Your task to perform on an android device: delete a single message in the gmail app Image 0: 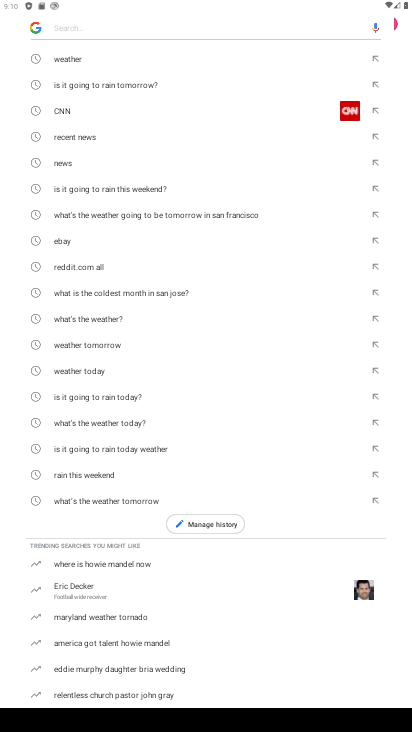
Step 0: press home button
Your task to perform on an android device: delete a single message in the gmail app Image 1: 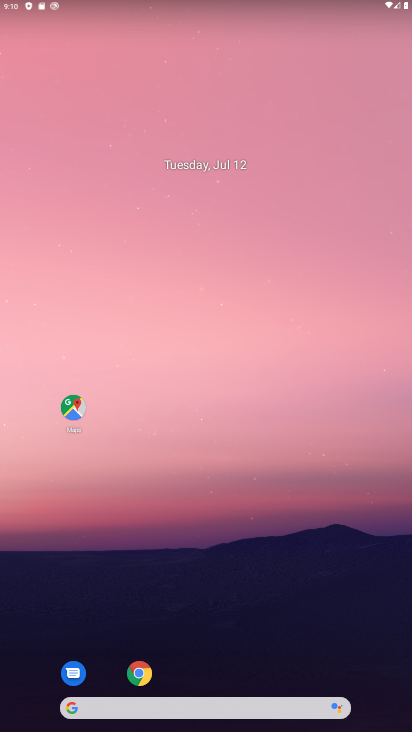
Step 1: drag from (169, 541) to (269, 52)
Your task to perform on an android device: delete a single message in the gmail app Image 2: 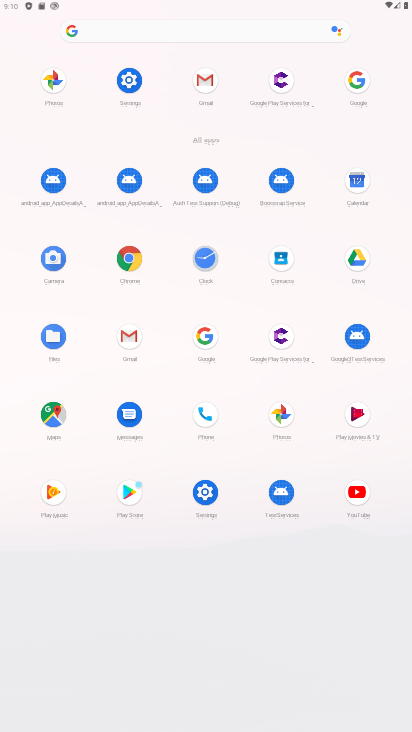
Step 2: click (202, 90)
Your task to perform on an android device: delete a single message in the gmail app Image 3: 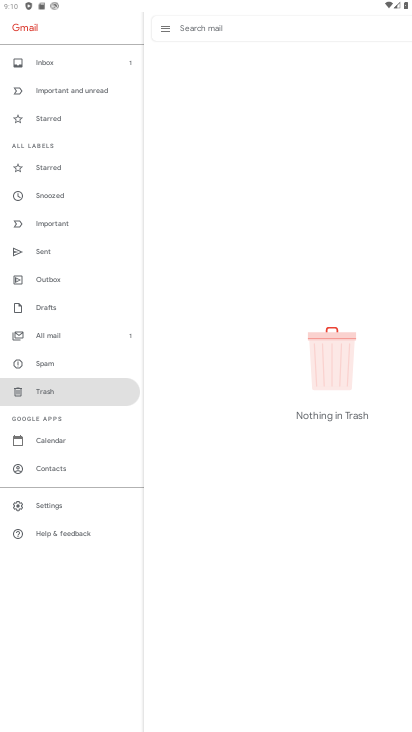
Step 3: click (48, 340)
Your task to perform on an android device: delete a single message in the gmail app Image 4: 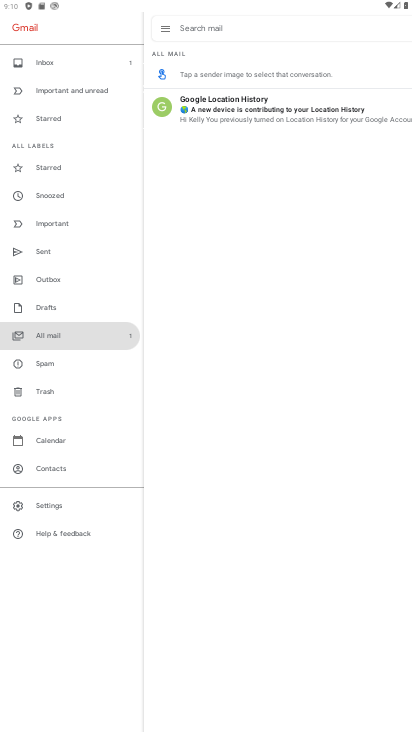
Step 4: click (252, 99)
Your task to perform on an android device: delete a single message in the gmail app Image 5: 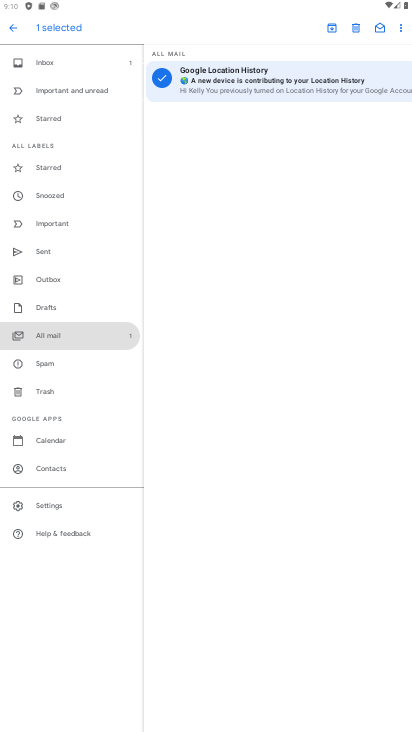
Step 5: click (352, 29)
Your task to perform on an android device: delete a single message in the gmail app Image 6: 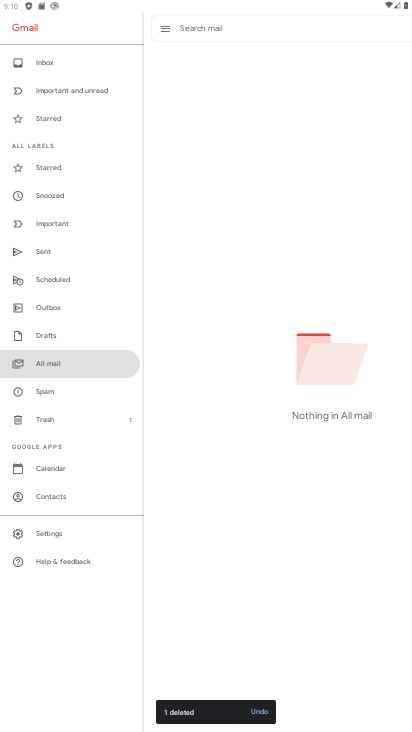
Step 6: task complete